Your task to perform on an android device: uninstall "Chime – Mobile Banking" Image 0: 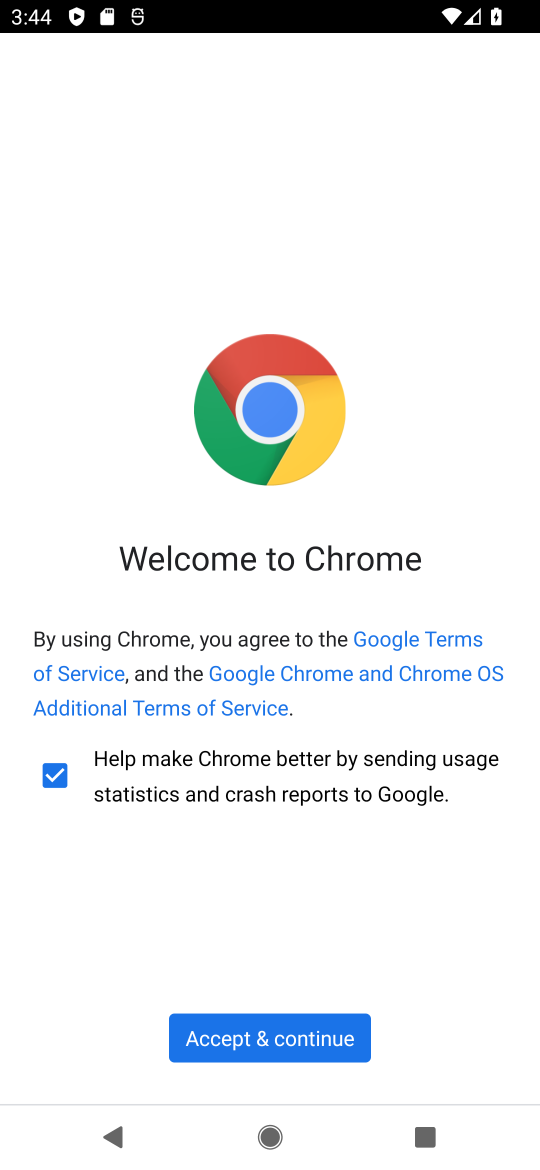
Step 0: press home button
Your task to perform on an android device: uninstall "Chime – Mobile Banking" Image 1: 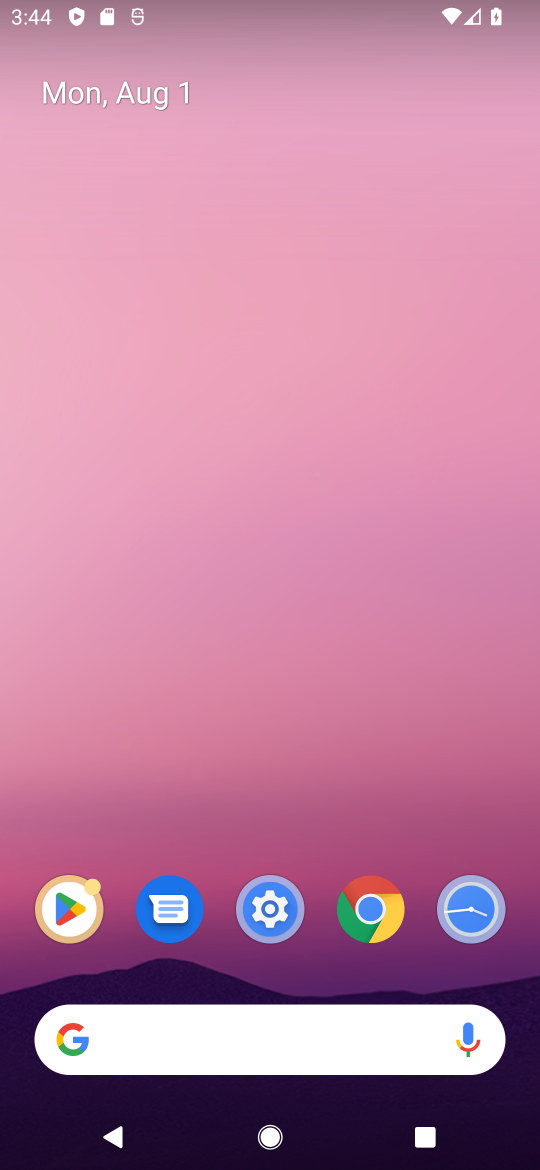
Step 1: click (60, 911)
Your task to perform on an android device: uninstall "Chime – Mobile Banking" Image 2: 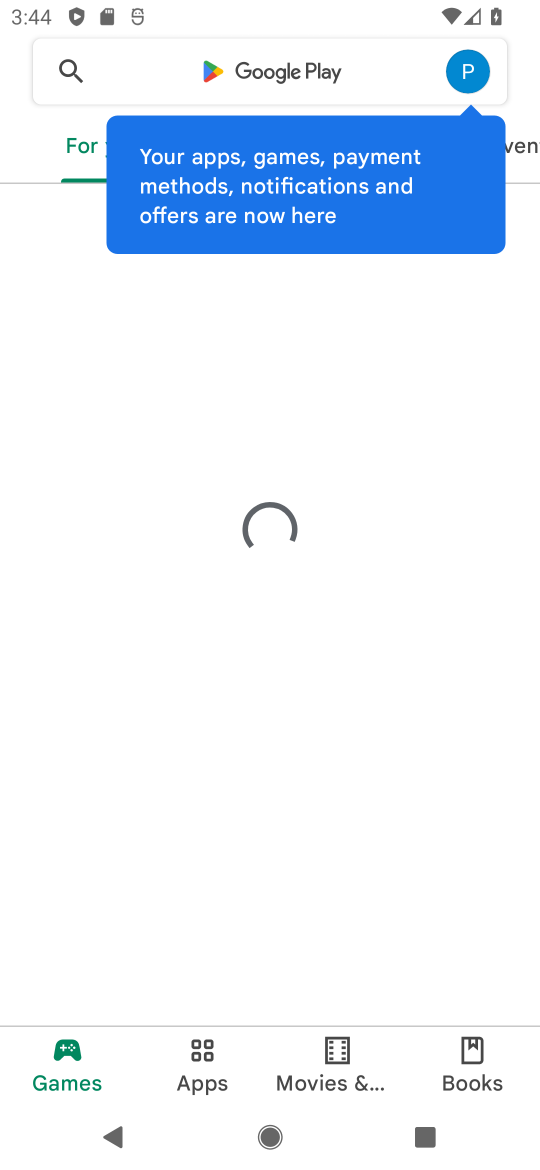
Step 2: click (263, 71)
Your task to perform on an android device: uninstall "Chime – Mobile Banking" Image 3: 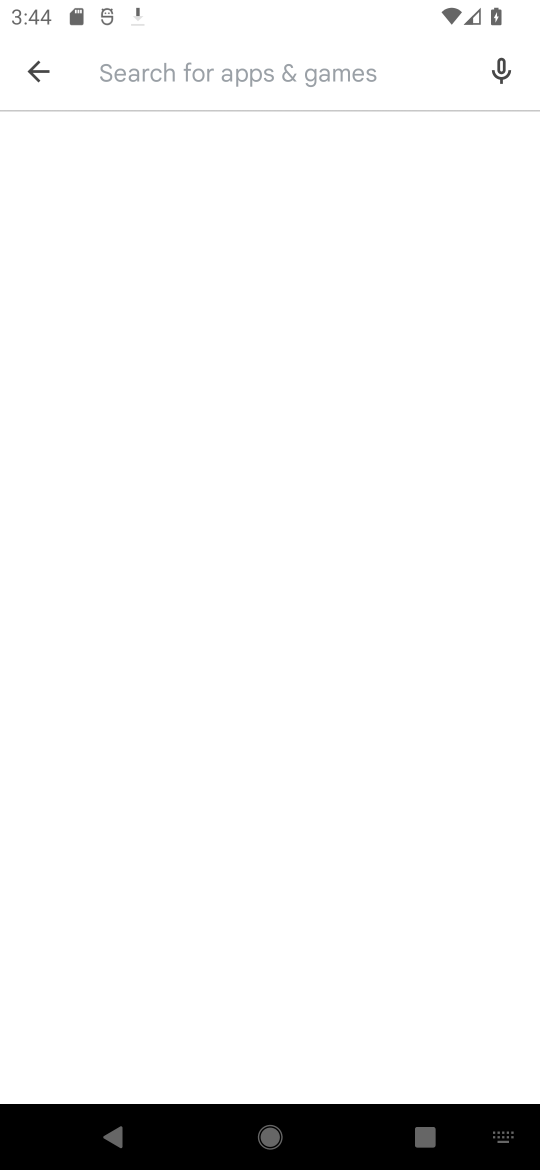
Step 3: type "Chime"
Your task to perform on an android device: uninstall "Chime – Mobile Banking" Image 4: 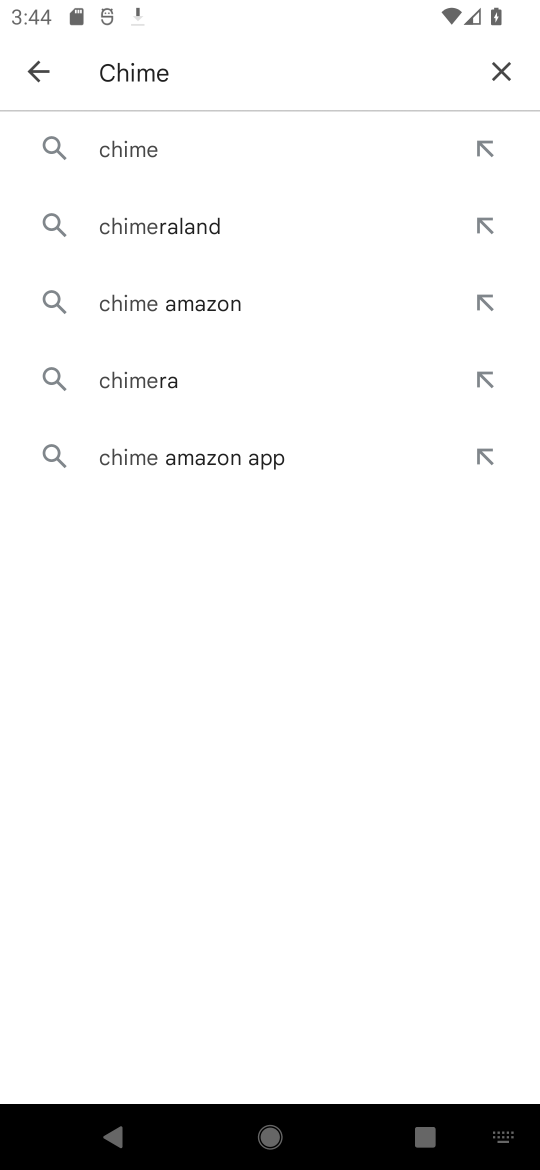
Step 4: click (84, 159)
Your task to perform on an android device: uninstall "Chime – Mobile Banking" Image 5: 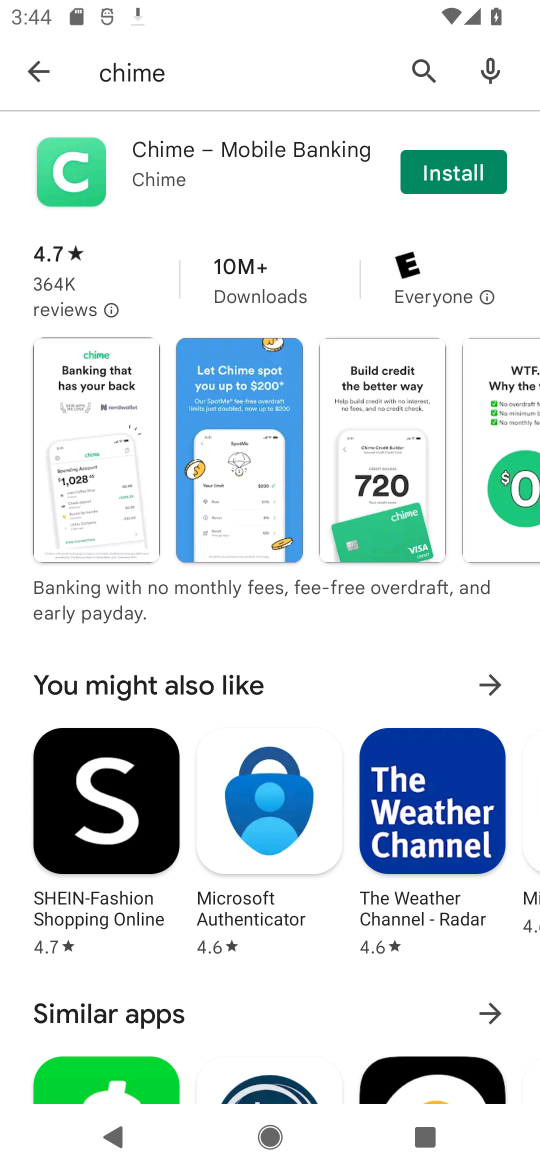
Step 5: click (204, 160)
Your task to perform on an android device: uninstall "Chime – Mobile Banking" Image 6: 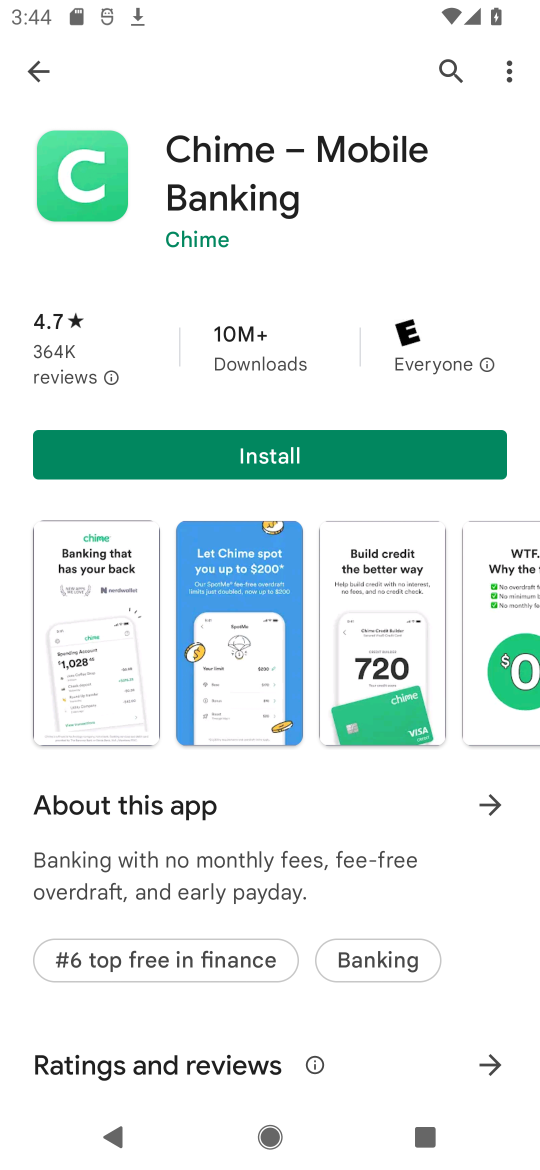
Step 6: task complete